Your task to perform on an android device: Search for pizza restaurants on Maps Image 0: 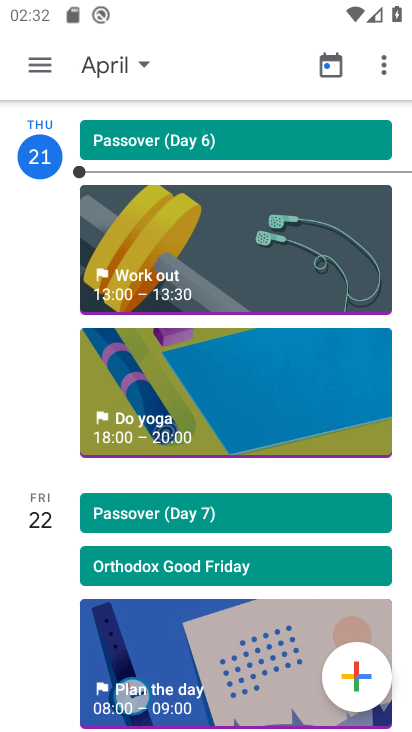
Step 0: press home button
Your task to perform on an android device: Search for pizza restaurants on Maps Image 1: 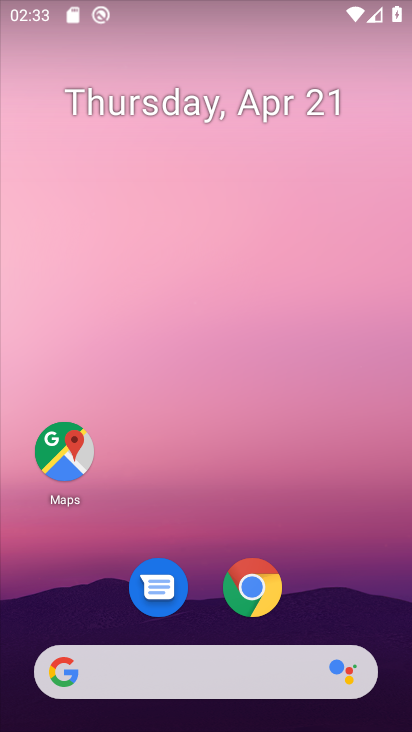
Step 1: drag from (347, 541) to (355, 181)
Your task to perform on an android device: Search for pizza restaurants on Maps Image 2: 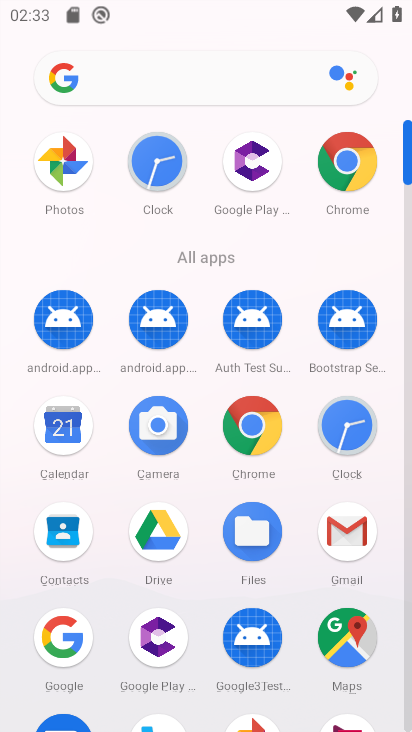
Step 2: click (363, 638)
Your task to perform on an android device: Search for pizza restaurants on Maps Image 3: 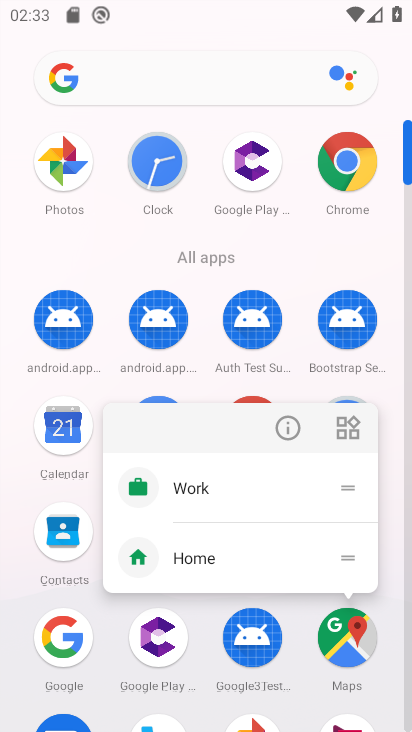
Step 3: click (356, 635)
Your task to perform on an android device: Search for pizza restaurants on Maps Image 4: 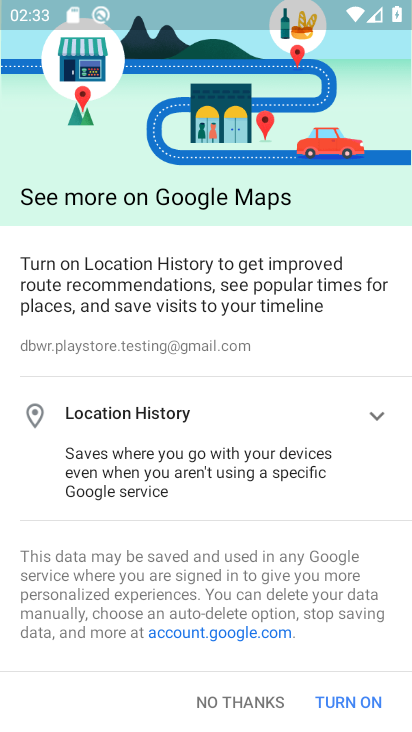
Step 4: click (253, 703)
Your task to perform on an android device: Search for pizza restaurants on Maps Image 5: 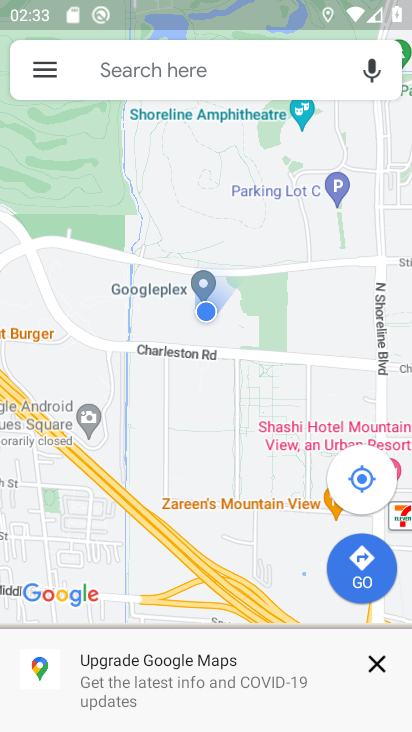
Step 5: click (226, 73)
Your task to perform on an android device: Search for pizza restaurants on Maps Image 6: 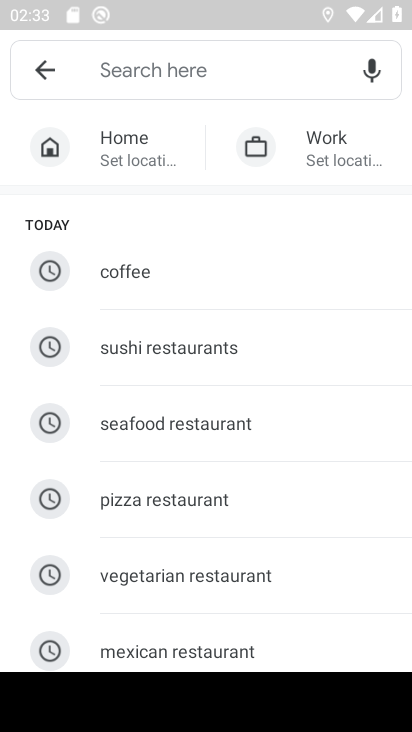
Step 6: type "pizzaa restaurants"
Your task to perform on an android device: Search for pizza restaurants on Maps Image 7: 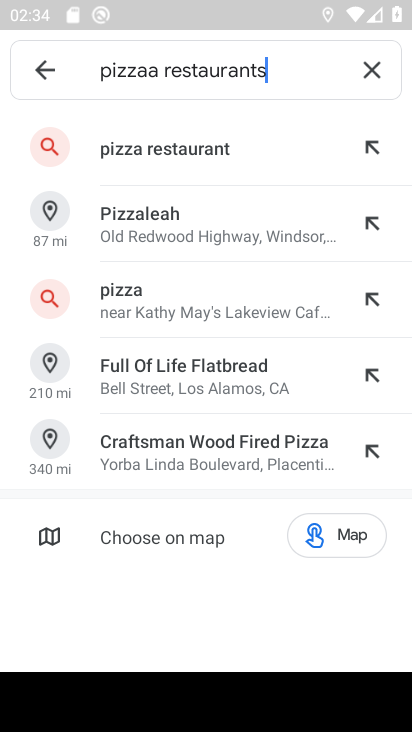
Step 7: click (229, 133)
Your task to perform on an android device: Search for pizza restaurants on Maps Image 8: 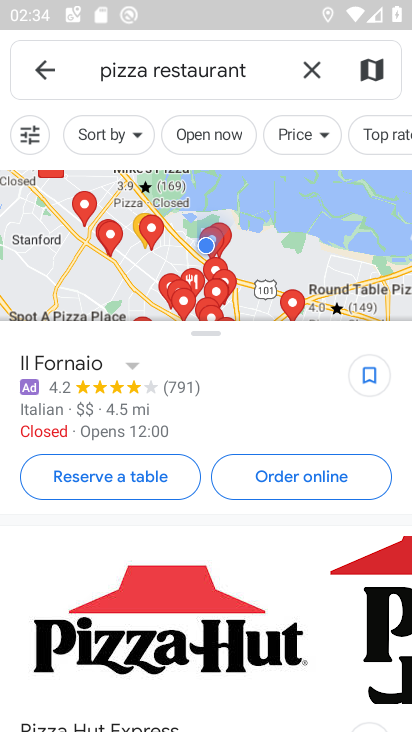
Step 8: task complete